Your task to perform on an android device: Show the shopping cart on target. Search for "lg ultragear" on target, select the first entry, add it to the cart, then select checkout. Image 0: 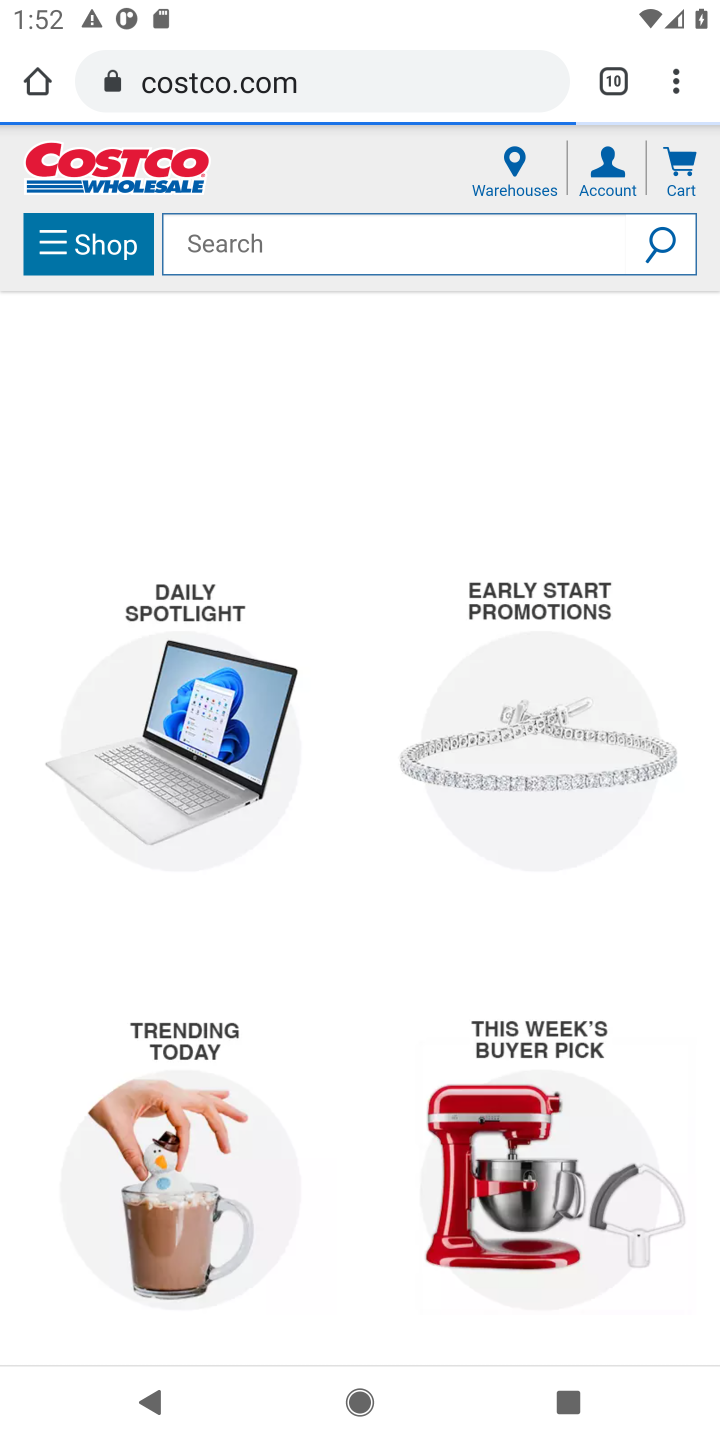
Step 0: press home button
Your task to perform on an android device: Show the shopping cart on target. Search for "lg ultragear" on target, select the first entry, add it to the cart, then select checkout. Image 1: 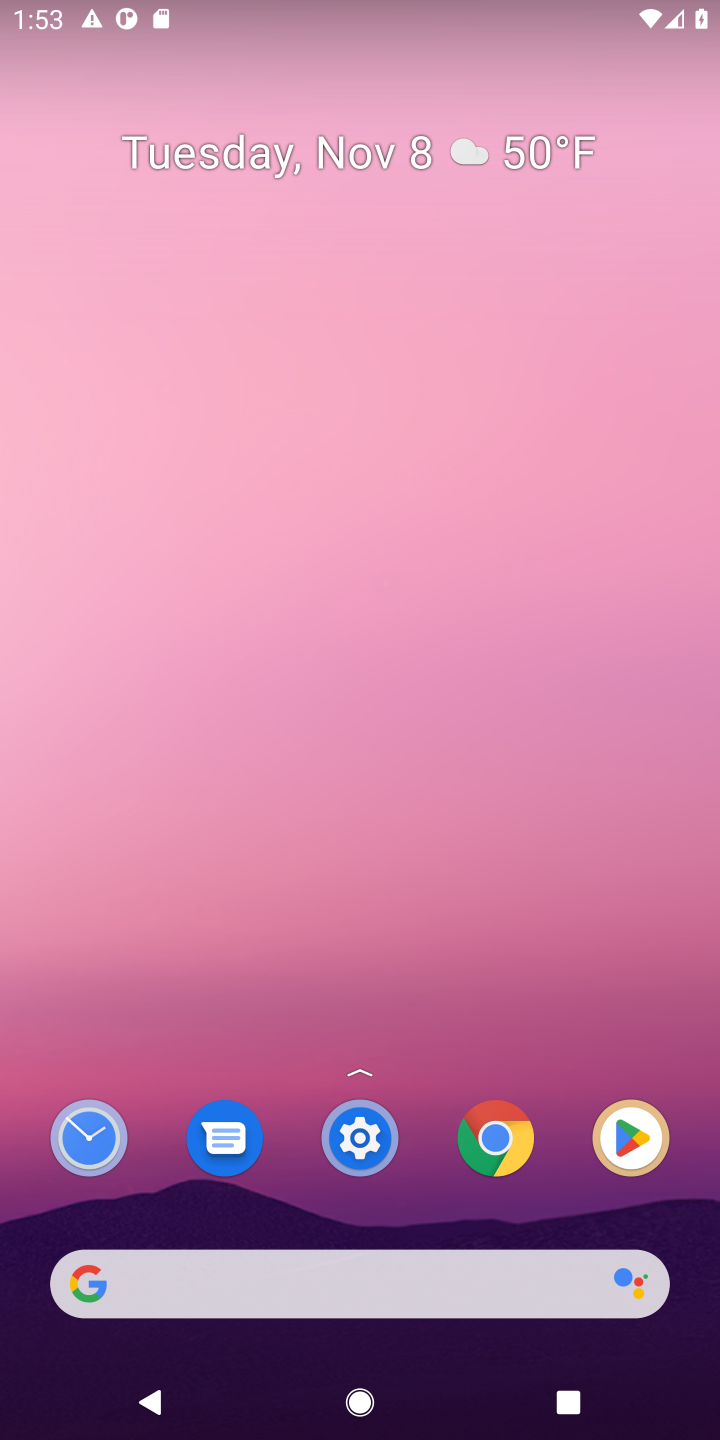
Step 1: click (274, 1276)
Your task to perform on an android device: Show the shopping cart on target. Search for "lg ultragear" on target, select the first entry, add it to the cart, then select checkout. Image 2: 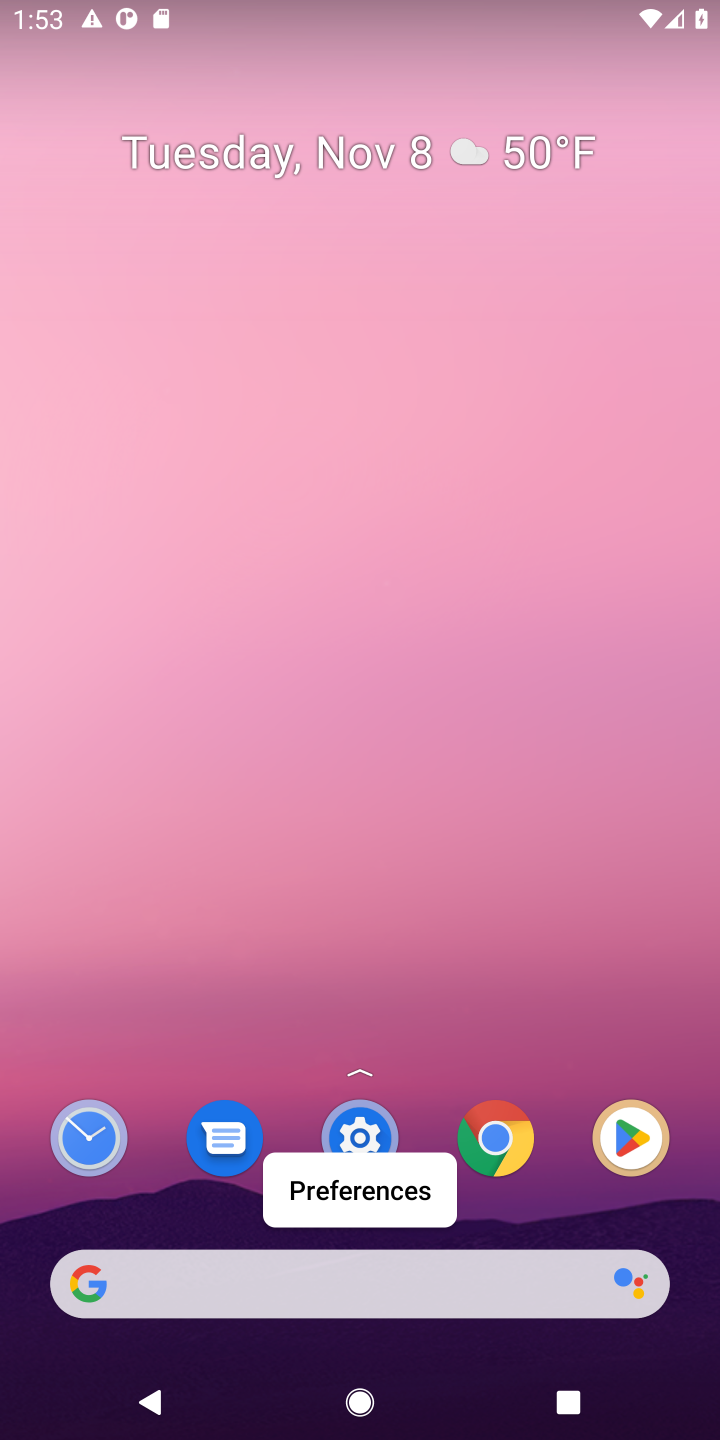
Step 2: type "target"
Your task to perform on an android device: Show the shopping cart on target. Search for "lg ultragear" on target, select the first entry, add it to the cart, then select checkout. Image 3: 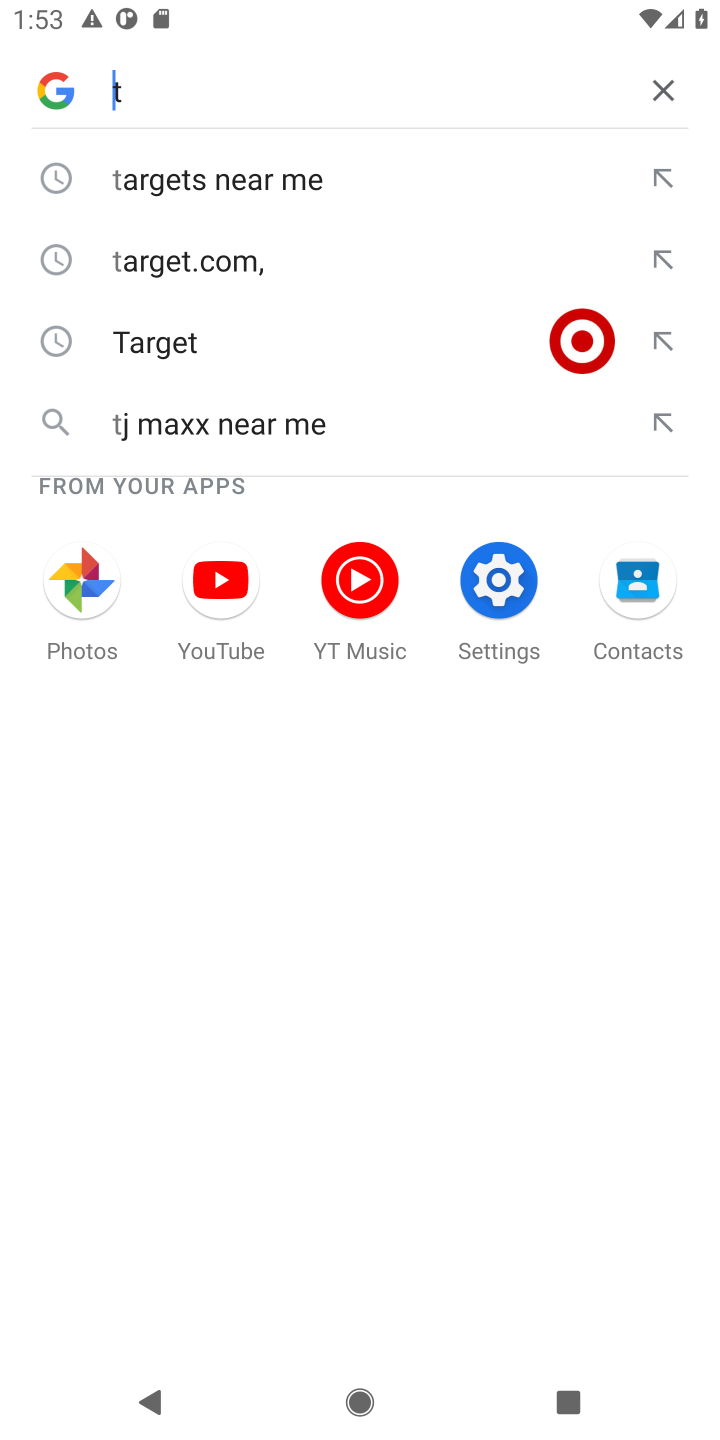
Step 3: click (474, 1265)
Your task to perform on an android device: Show the shopping cart on target. Search for "lg ultragear" on target, select the first entry, add it to the cart, then select checkout. Image 4: 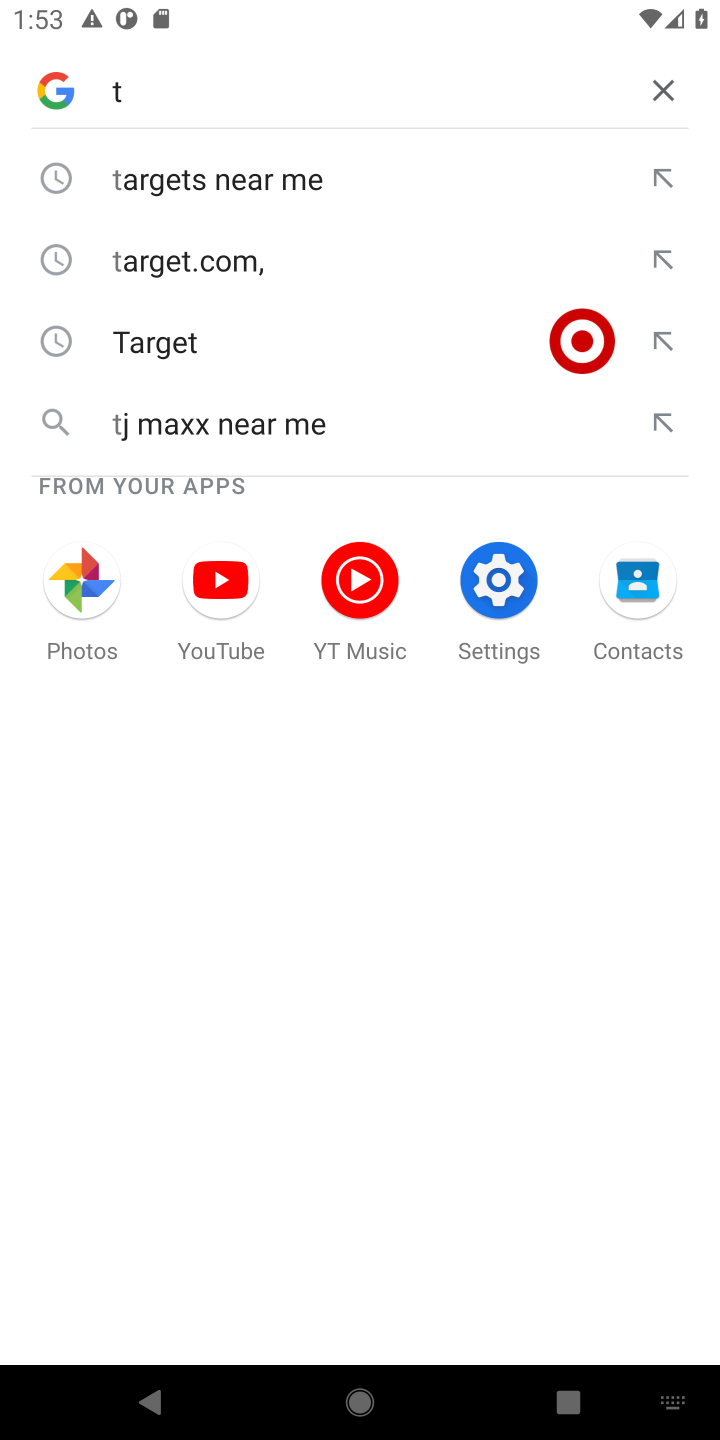
Step 4: click (184, 342)
Your task to perform on an android device: Show the shopping cart on target. Search for "lg ultragear" on target, select the first entry, add it to the cart, then select checkout. Image 5: 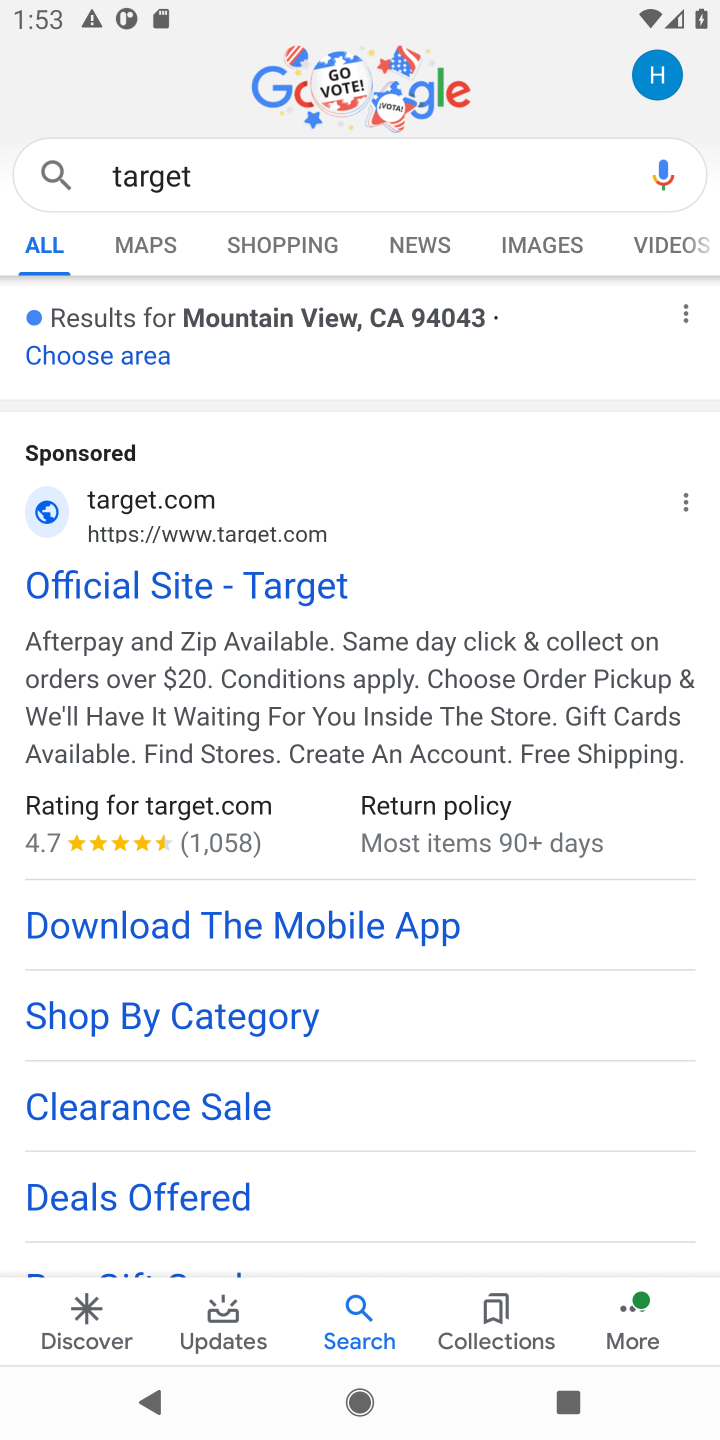
Step 5: click (178, 563)
Your task to perform on an android device: Show the shopping cart on target. Search for "lg ultragear" on target, select the first entry, add it to the cart, then select checkout. Image 6: 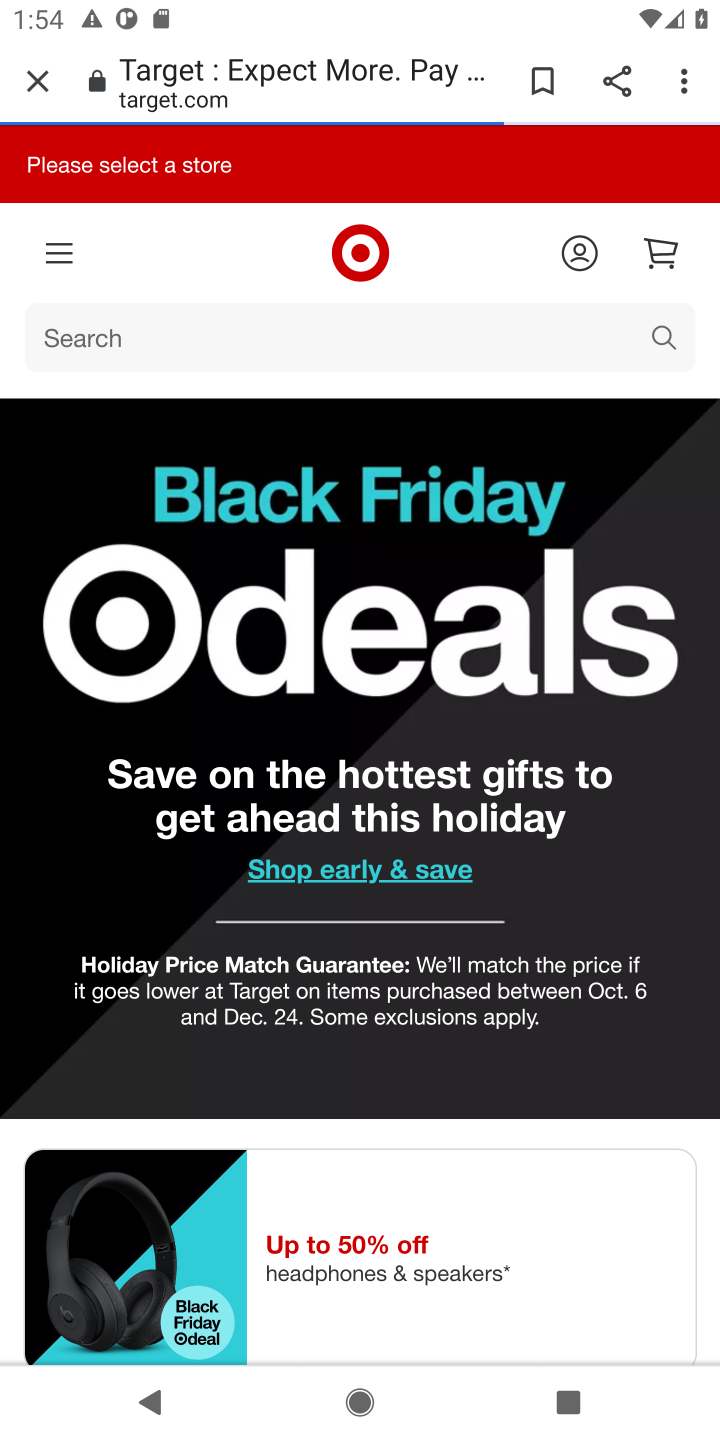
Step 6: click (359, 324)
Your task to perform on an android device: Show the shopping cart on target. Search for "lg ultragear" on target, select the first entry, add it to the cart, then select checkout. Image 7: 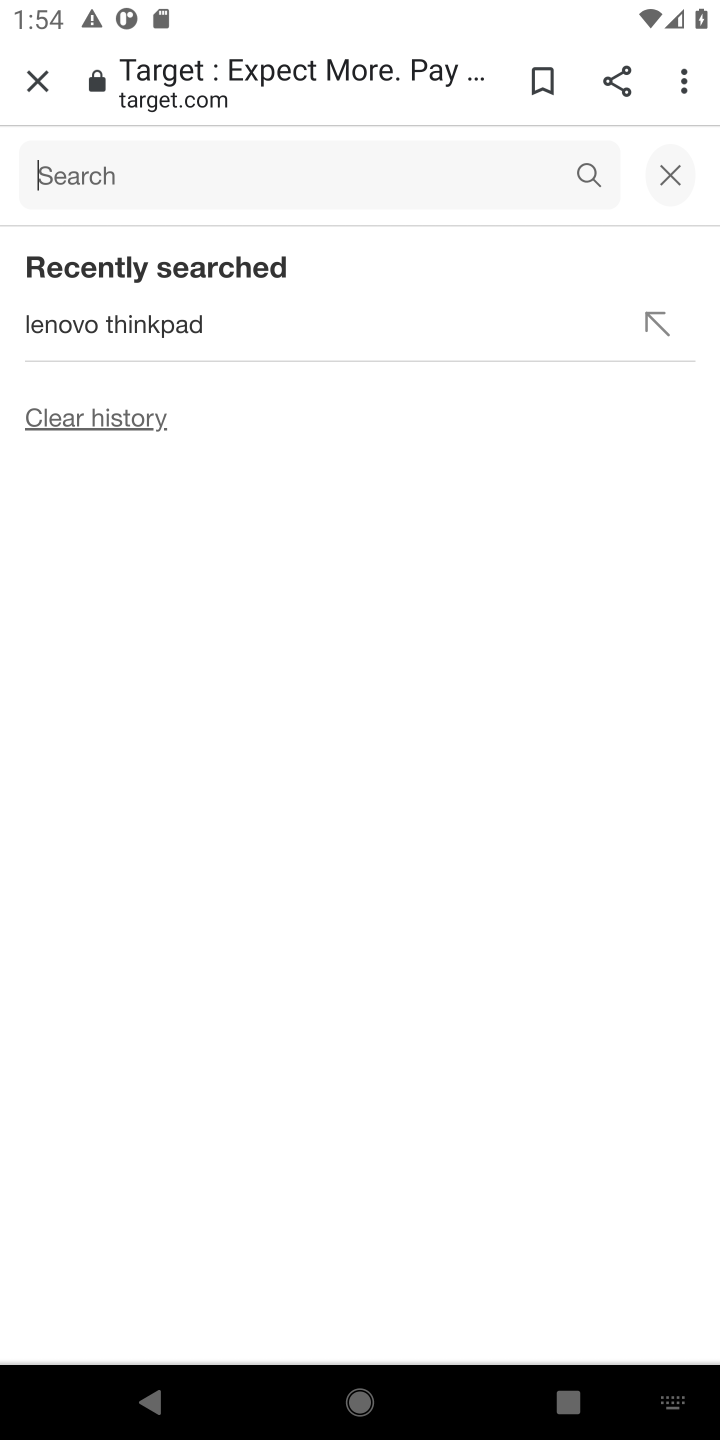
Step 7: task complete